Your task to perform on an android device: toggle data saver in the chrome app Image 0: 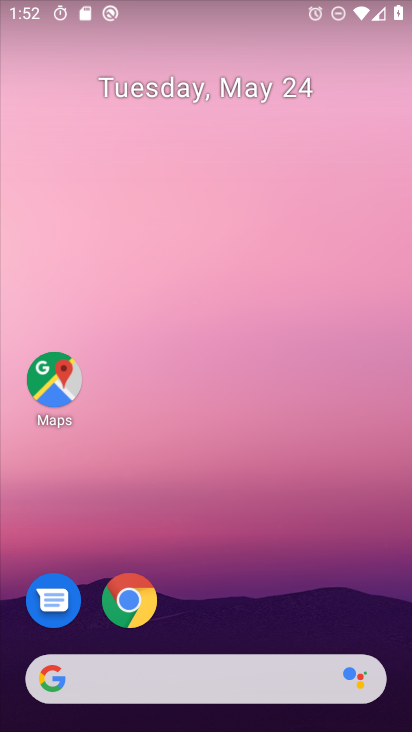
Step 0: click (123, 603)
Your task to perform on an android device: toggle data saver in the chrome app Image 1: 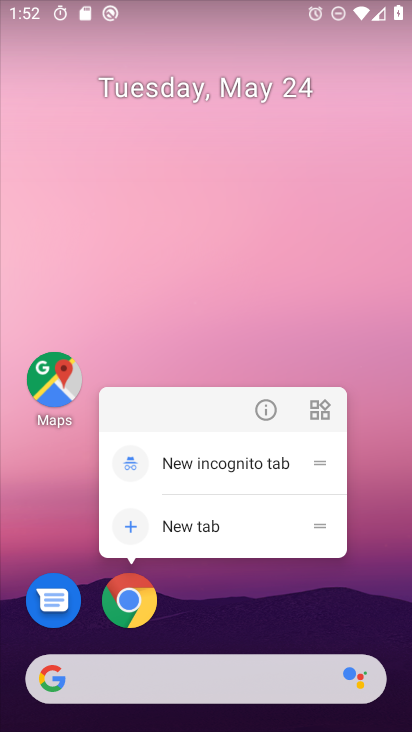
Step 1: click (134, 595)
Your task to perform on an android device: toggle data saver in the chrome app Image 2: 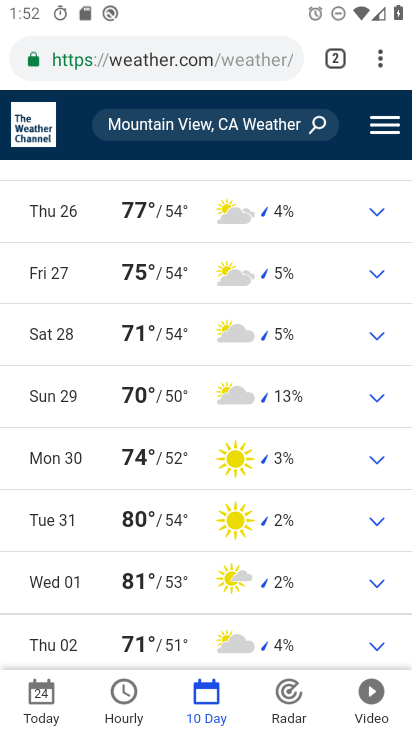
Step 2: click (382, 57)
Your task to perform on an android device: toggle data saver in the chrome app Image 3: 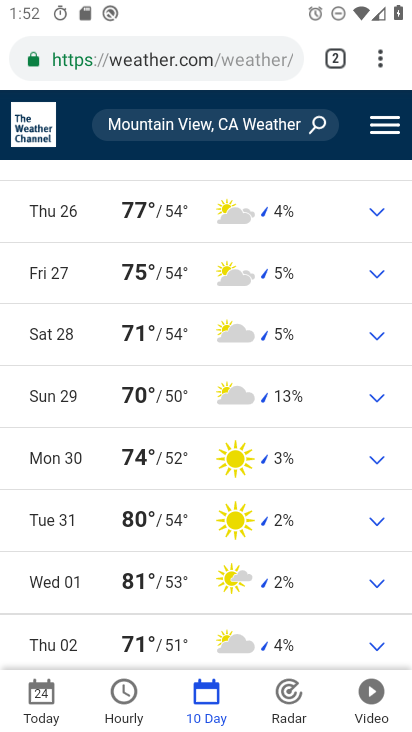
Step 3: drag from (380, 47) to (199, 633)
Your task to perform on an android device: toggle data saver in the chrome app Image 4: 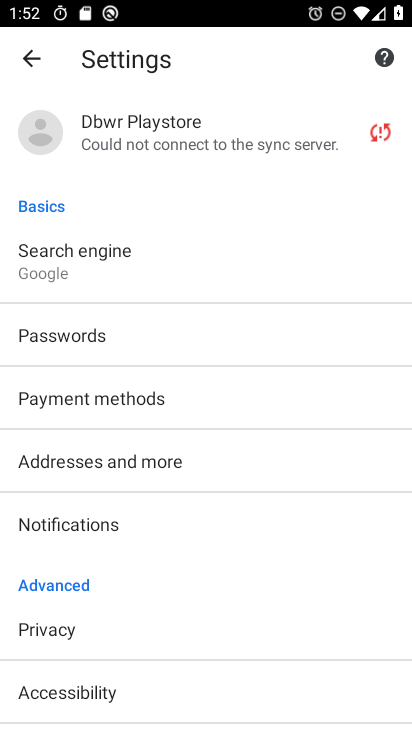
Step 4: drag from (80, 674) to (162, 355)
Your task to perform on an android device: toggle data saver in the chrome app Image 5: 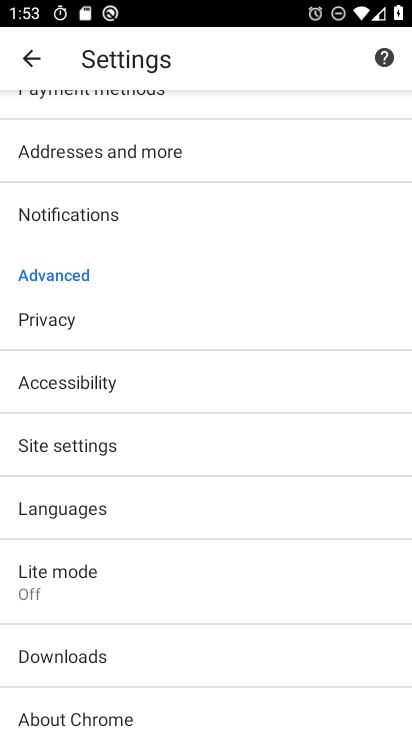
Step 5: click (96, 575)
Your task to perform on an android device: toggle data saver in the chrome app Image 6: 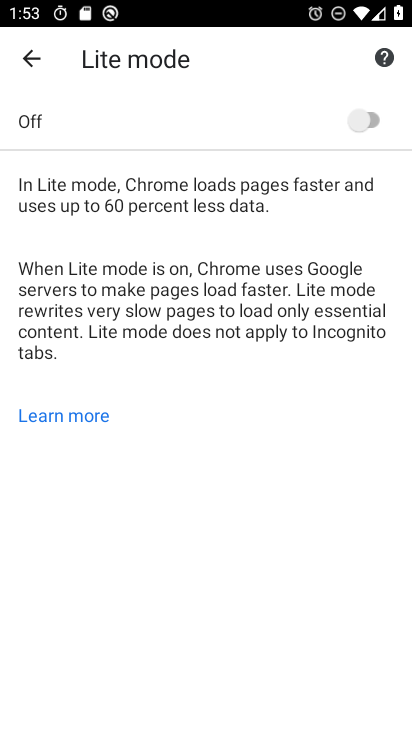
Step 6: click (340, 151)
Your task to perform on an android device: toggle data saver in the chrome app Image 7: 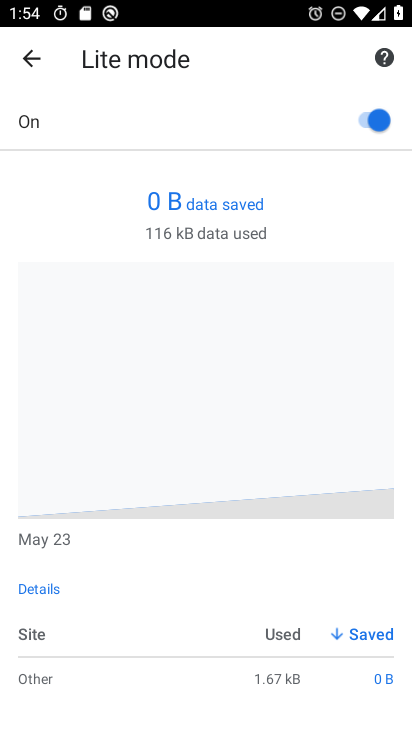
Step 7: task complete